Your task to perform on an android device: allow cookies in the chrome app Image 0: 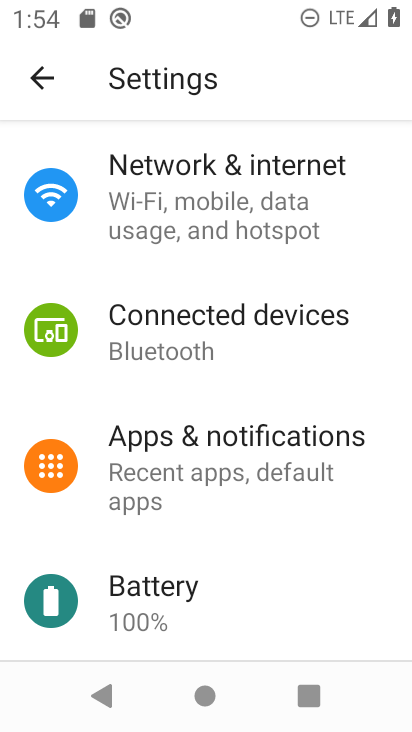
Step 0: press home button
Your task to perform on an android device: allow cookies in the chrome app Image 1: 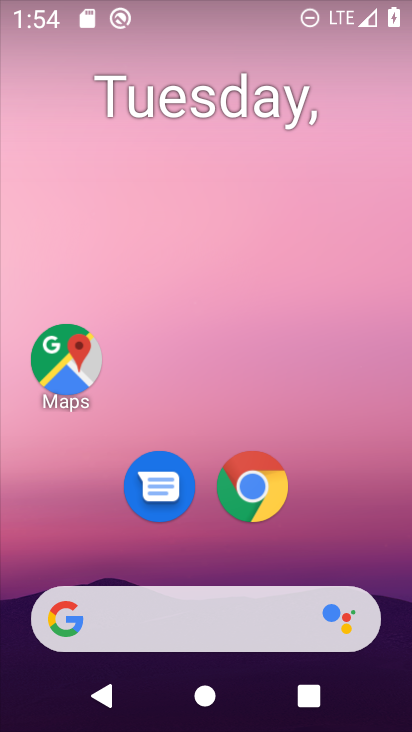
Step 1: drag from (208, 568) to (241, 137)
Your task to perform on an android device: allow cookies in the chrome app Image 2: 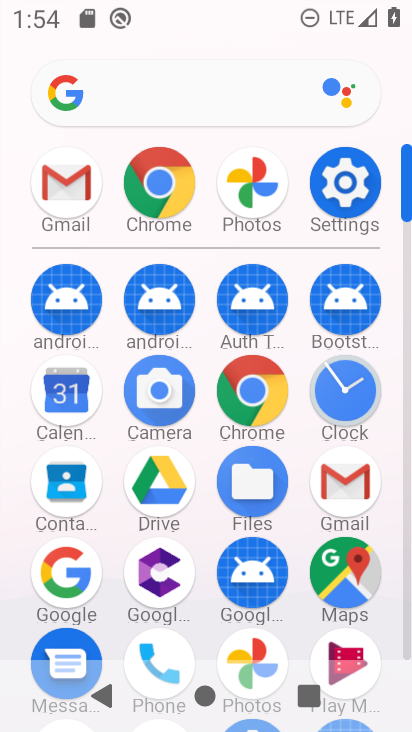
Step 2: click (263, 423)
Your task to perform on an android device: allow cookies in the chrome app Image 3: 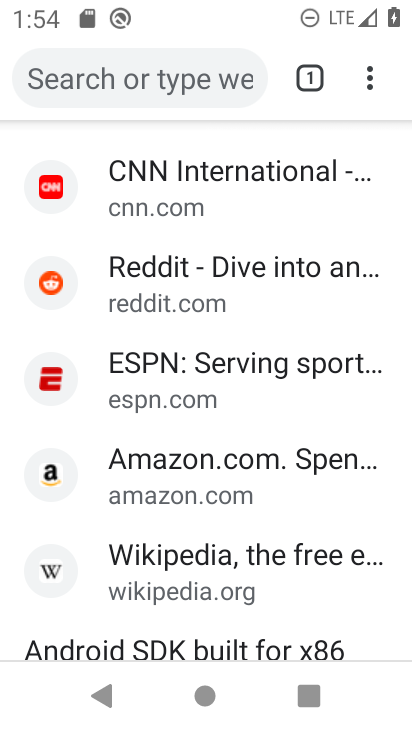
Step 3: click (365, 95)
Your task to perform on an android device: allow cookies in the chrome app Image 4: 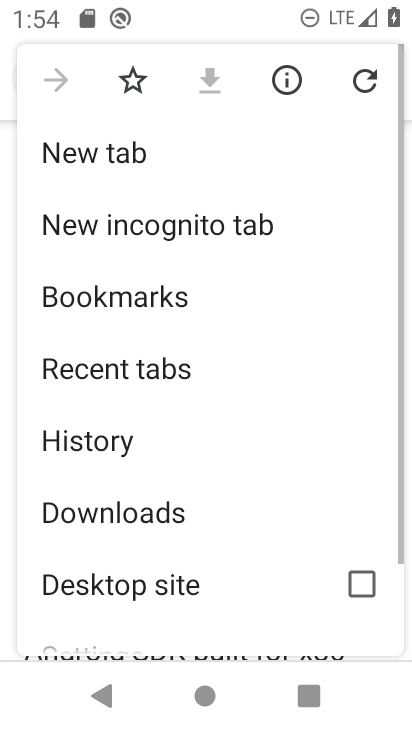
Step 4: drag from (153, 585) to (206, 261)
Your task to perform on an android device: allow cookies in the chrome app Image 5: 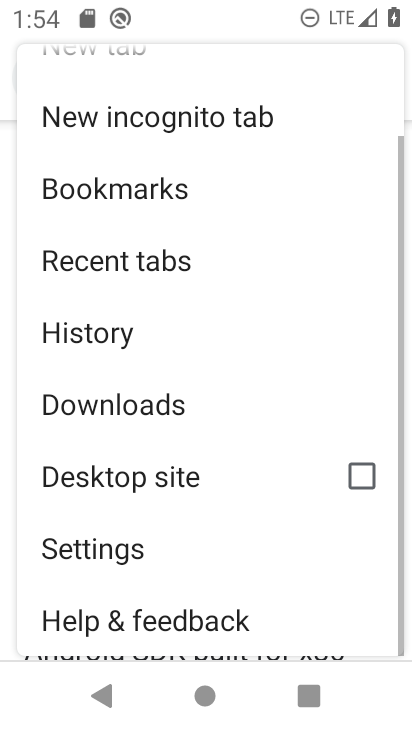
Step 5: click (147, 564)
Your task to perform on an android device: allow cookies in the chrome app Image 6: 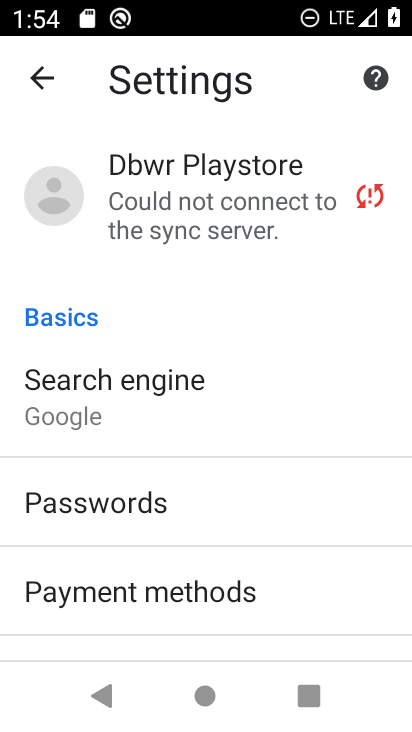
Step 6: drag from (256, 561) to (254, 224)
Your task to perform on an android device: allow cookies in the chrome app Image 7: 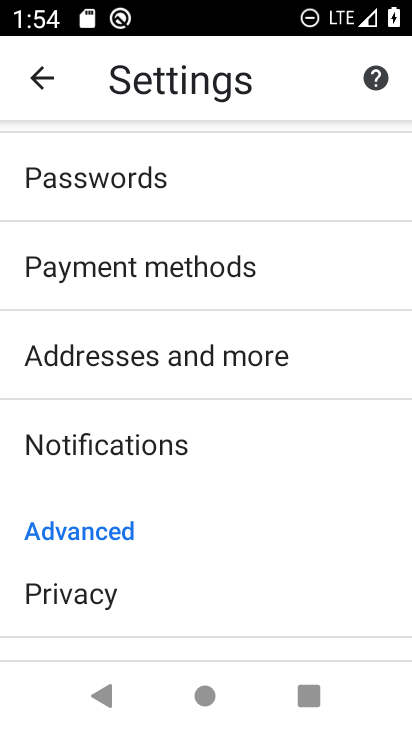
Step 7: drag from (164, 524) to (177, 306)
Your task to perform on an android device: allow cookies in the chrome app Image 8: 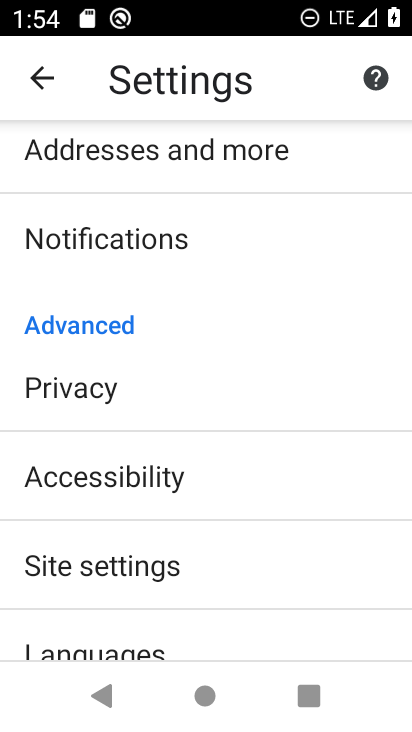
Step 8: click (181, 587)
Your task to perform on an android device: allow cookies in the chrome app Image 9: 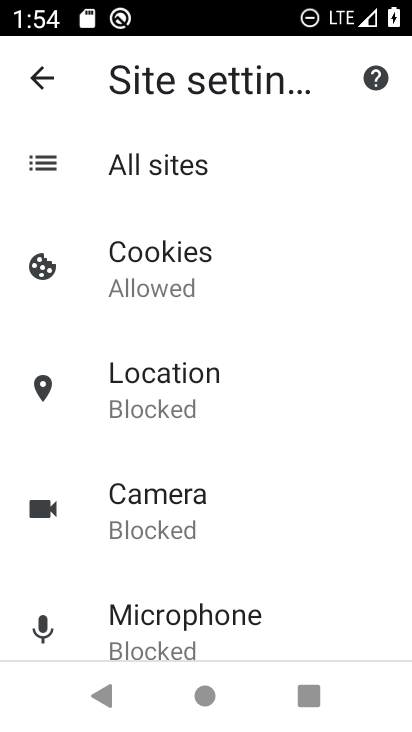
Step 9: task complete